Your task to perform on an android device: delete the emails in spam in the gmail app Image 0: 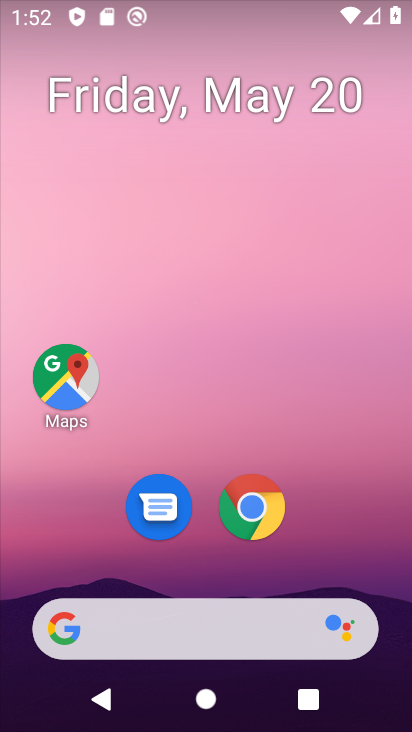
Step 0: click (91, 356)
Your task to perform on an android device: delete the emails in spam in the gmail app Image 1: 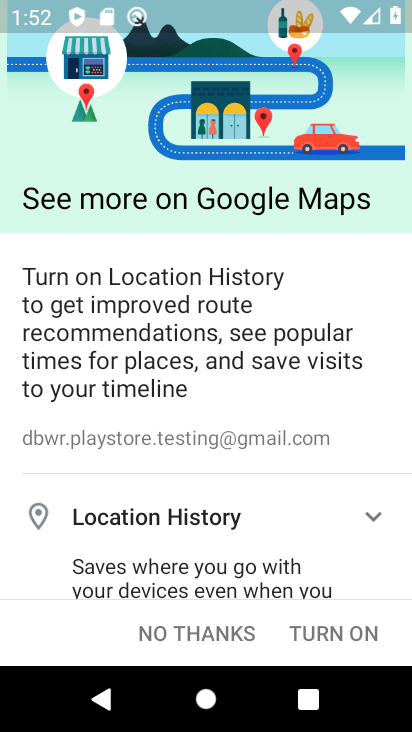
Step 1: click (329, 628)
Your task to perform on an android device: delete the emails in spam in the gmail app Image 2: 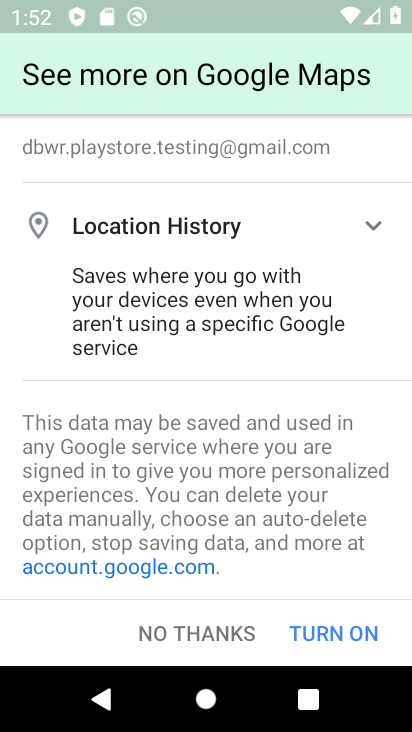
Step 2: click (329, 628)
Your task to perform on an android device: delete the emails in spam in the gmail app Image 3: 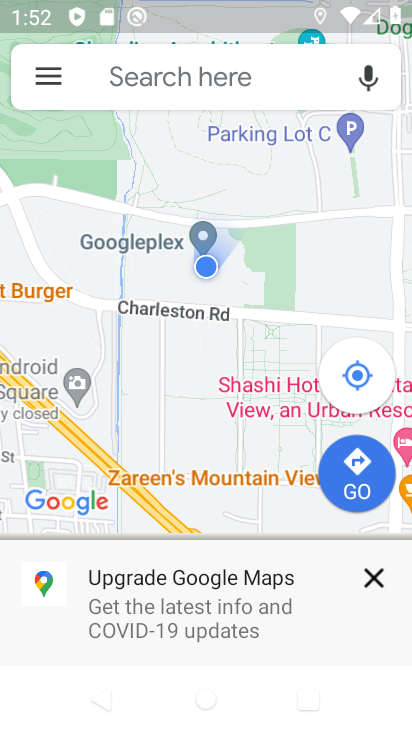
Step 3: press home button
Your task to perform on an android device: delete the emails in spam in the gmail app Image 4: 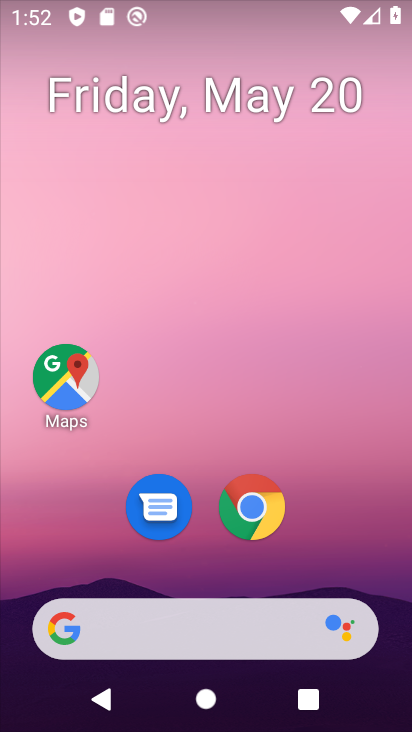
Step 4: drag from (199, 486) to (219, 382)
Your task to perform on an android device: delete the emails in spam in the gmail app Image 5: 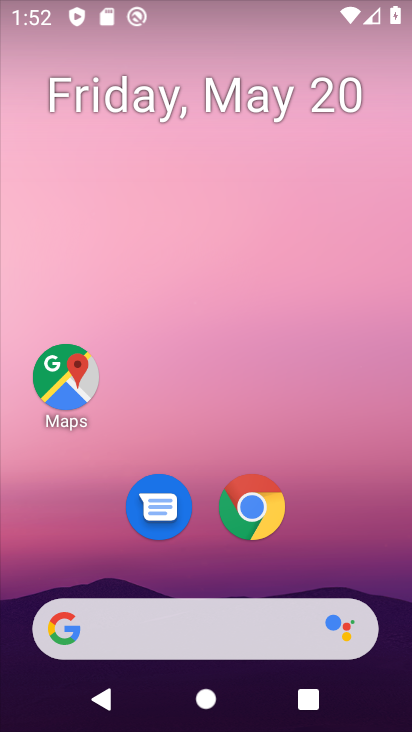
Step 5: drag from (229, 558) to (208, 93)
Your task to perform on an android device: delete the emails in spam in the gmail app Image 6: 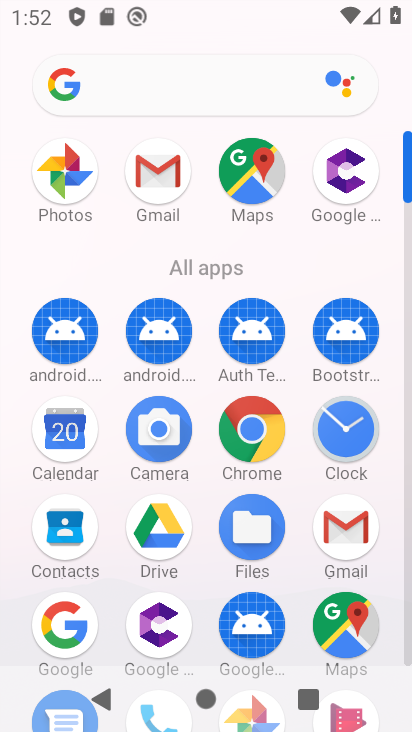
Step 6: click (153, 168)
Your task to perform on an android device: delete the emails in spam in the gmail app Image 7: 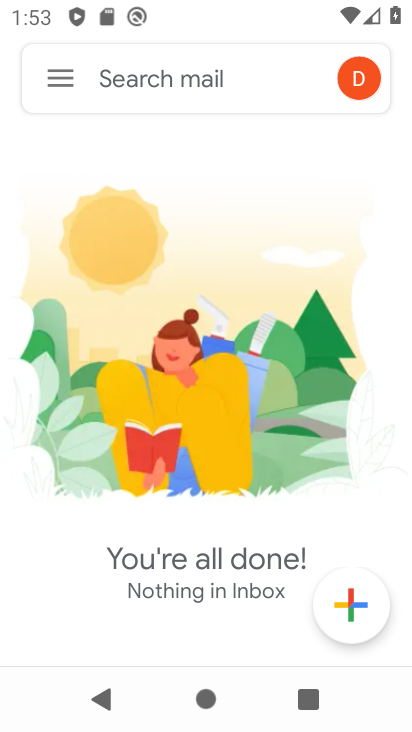
Step 7: click (57, 57)
Your task to perform on an android device: delete the emails in spam in the gmail app Image 8: 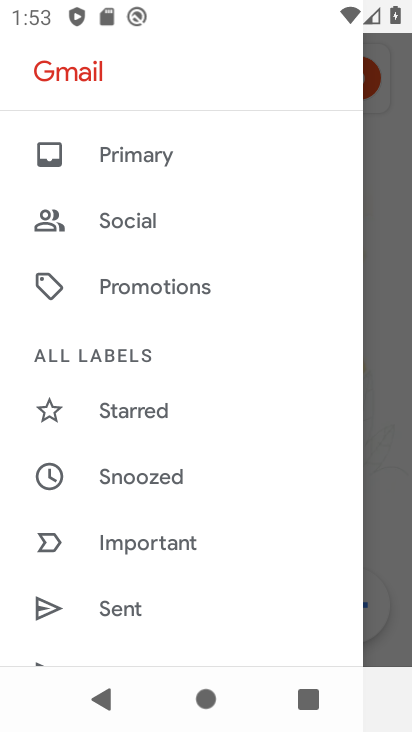
Step 8: drag from (104, 588) to (201, 196)
Your task to perform on an android device: delete the emails in spam in the gmail app Image 9: 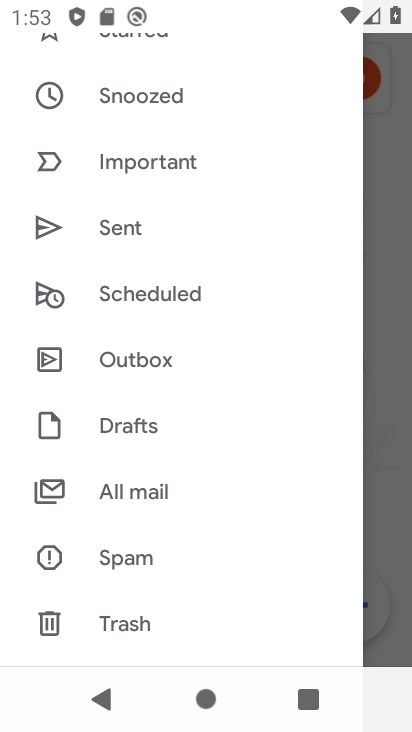
Step 9: drag from (137, 599) to (273, 209)
Your task to perform on an android device: delete the emails in spam in the gmail app Image 10: 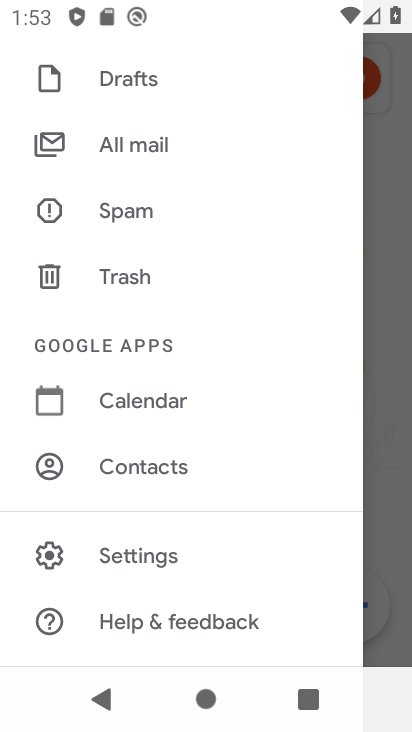
Step 10: click (184, 224)
Your task to perform on an android device: delete the emails in spam in the gmail app Image 11: 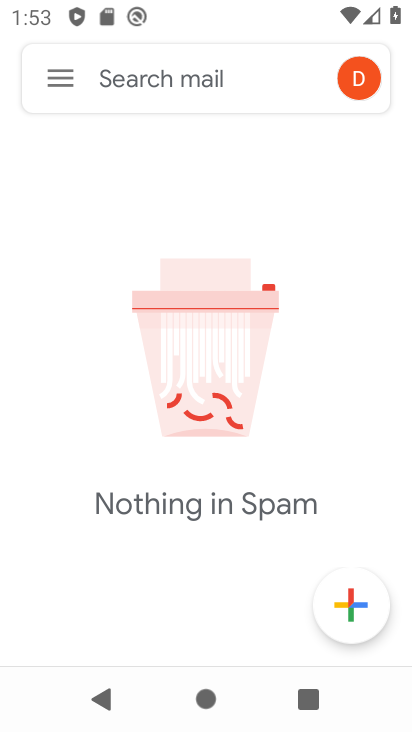
Step 11: task complete